Your task to perform on an android device: turn off wifi Image 0: 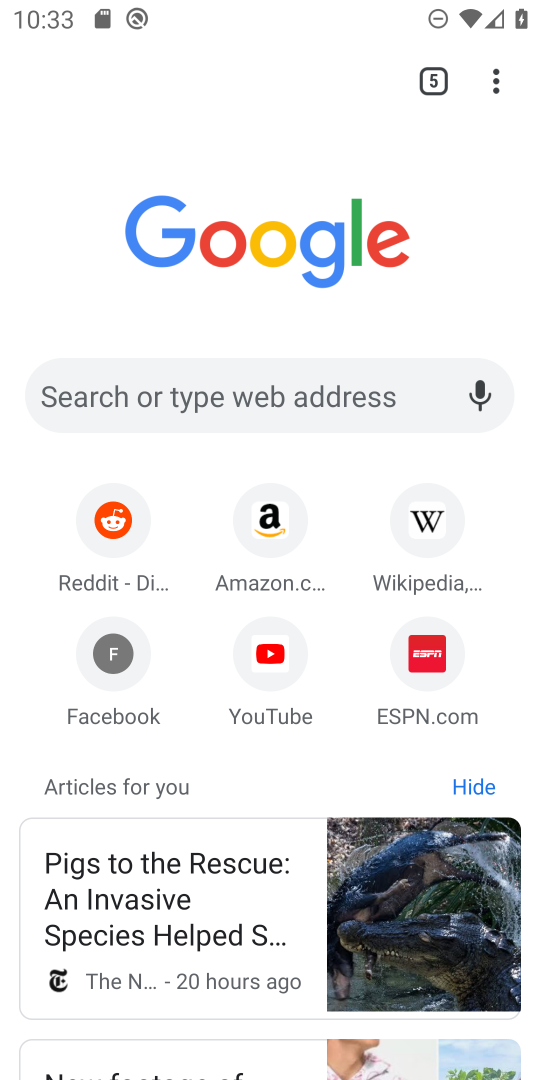
Step 0: press home button
Your task to perform on an android device: turn off wifi Image 1: 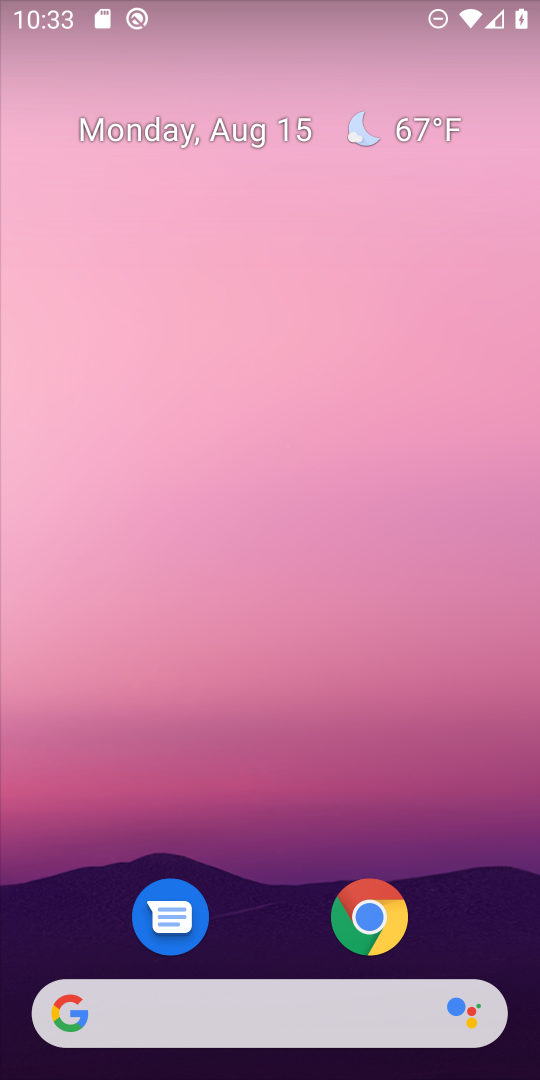
Step 1: drag from (272, 859) to (369, 5)
Your task to perform on an android device: turn off wifi Image 2: 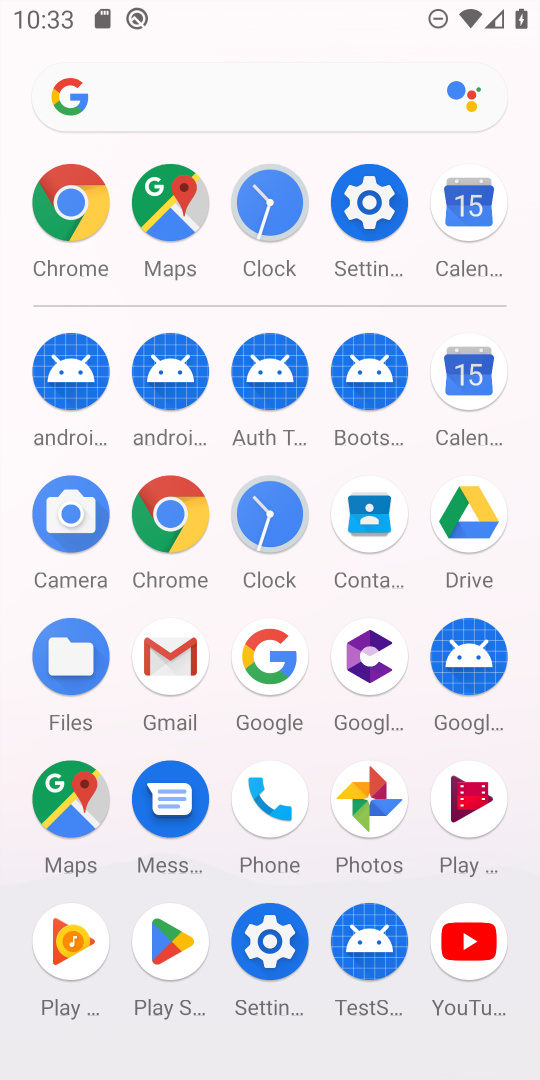
Step 2: click (378, 202)
Your task to perform on an android device: turn off wifi Image 3: 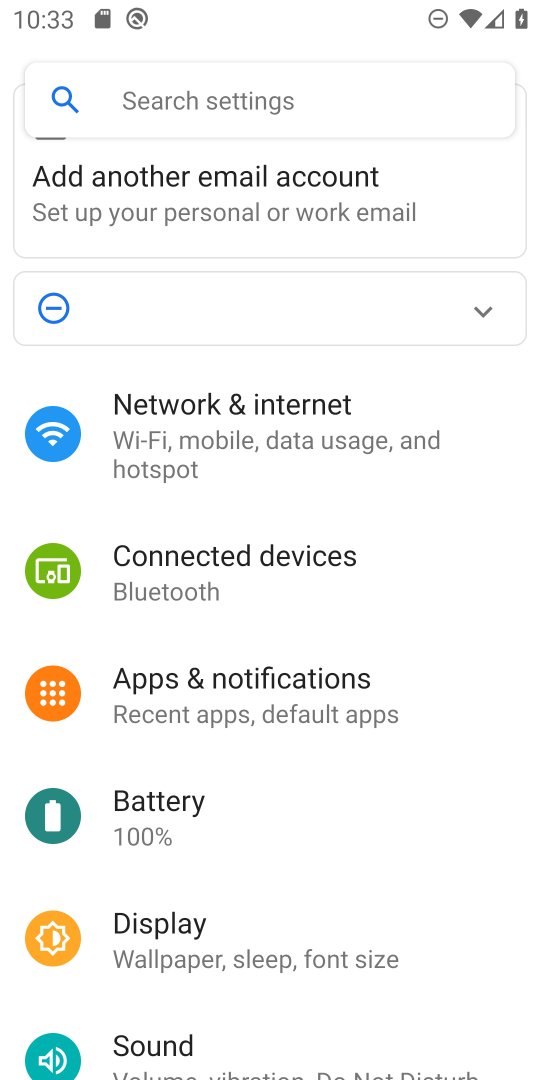
Step 3: click (286, 420)
Your task to perform on an android device: turn off wifi Image 4: 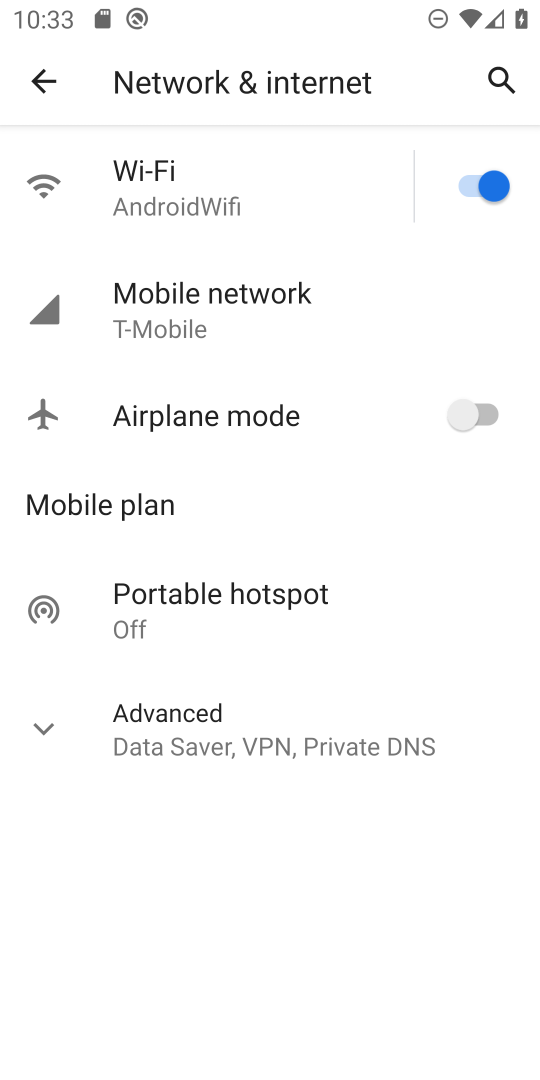
Step 4: click (478, 184)
Your task to perform on an android device: turn off wifi Image 5: 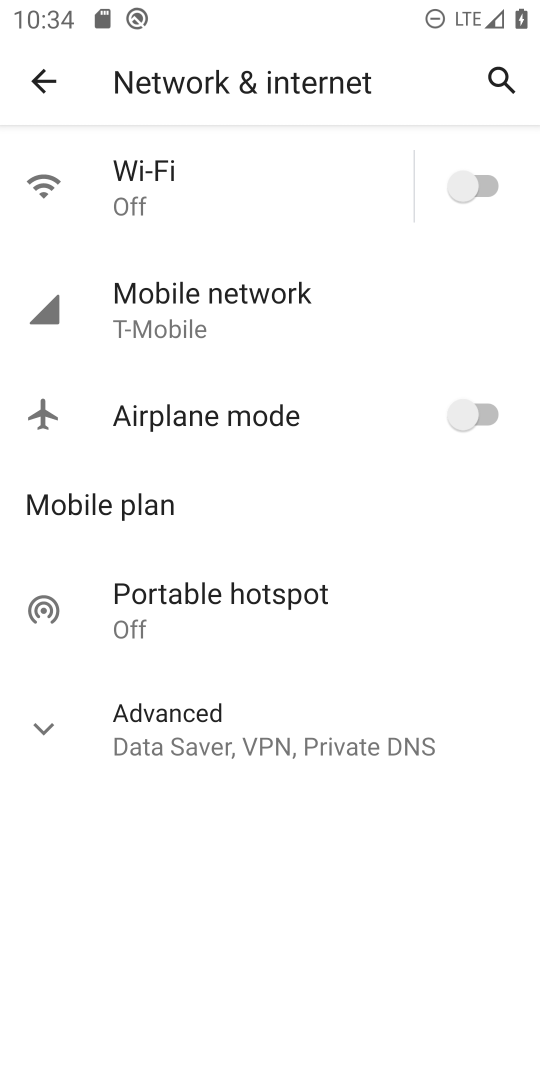
Step 5: task complete